Your task to perform on an android device: turn on location history Image 0: 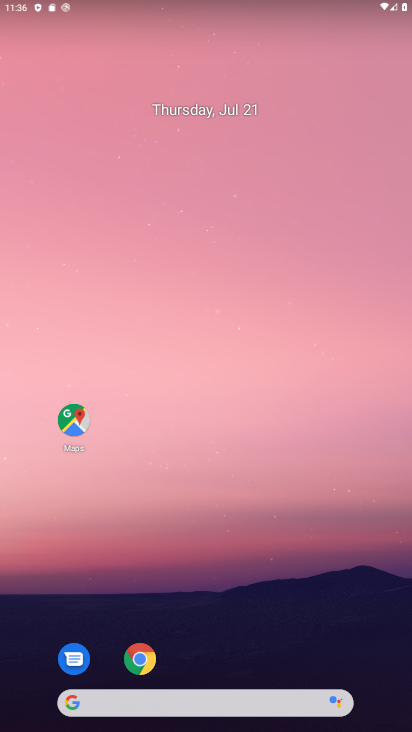
Step 0: drag from (195, 681) to (175, 358)
Your task to perform on an android device: turn on location history Image 1: 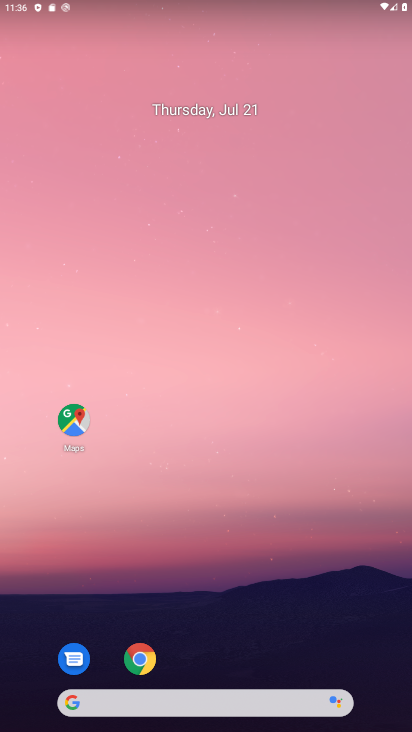
Step 1: drag from (188, 664) to (303, 14)
Your task to perform on an android device: turn on location history Image 2: 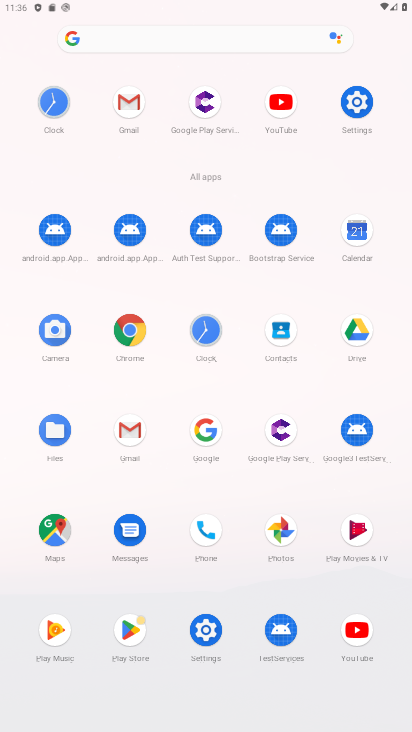
Step 2: click (358, 100)
Your task to perform on an android device: turn on location history Image 3: 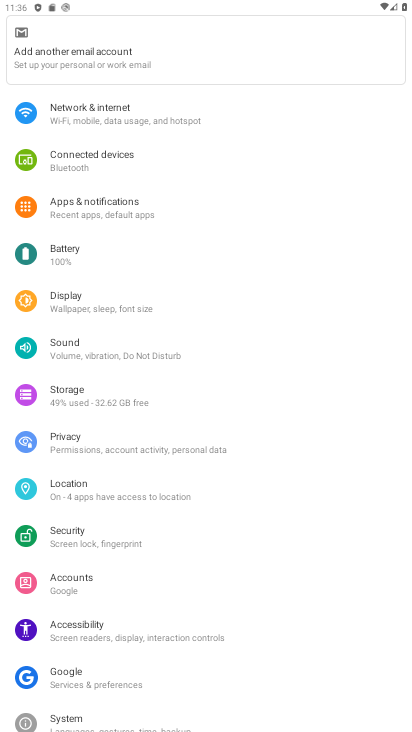
Step 3: click (114, 511)
Your task to perform on an android device: turn on location history Image 4: 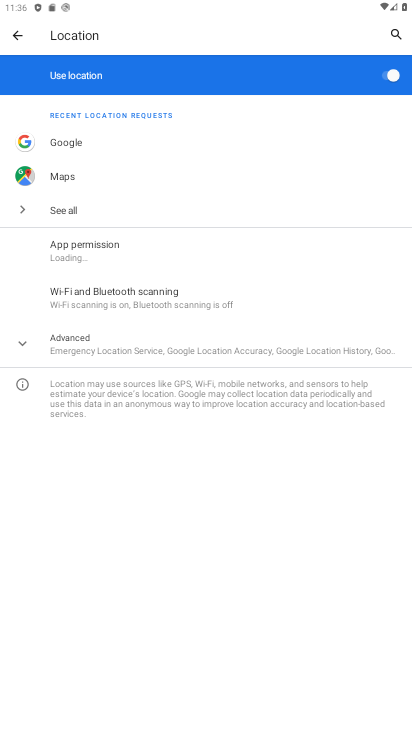
Step 4: click (73, 351)
Your task to perform on an android device: turn on location history Image 5: 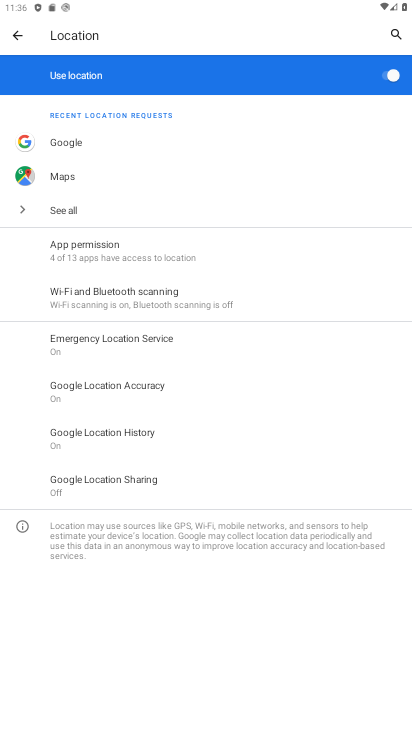
Step 5: click (94, 431)
Your task to perform on an android device: turn on location history Image 6: 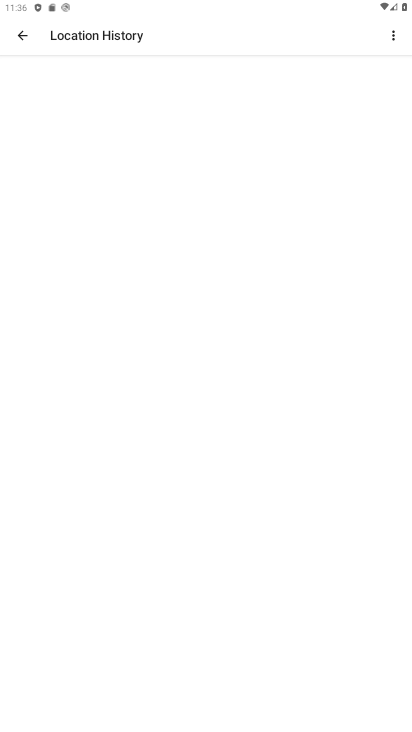
Step 6: task complete